Your task to perform on an android device: Search for sushi restaurants on Maps Image 0: 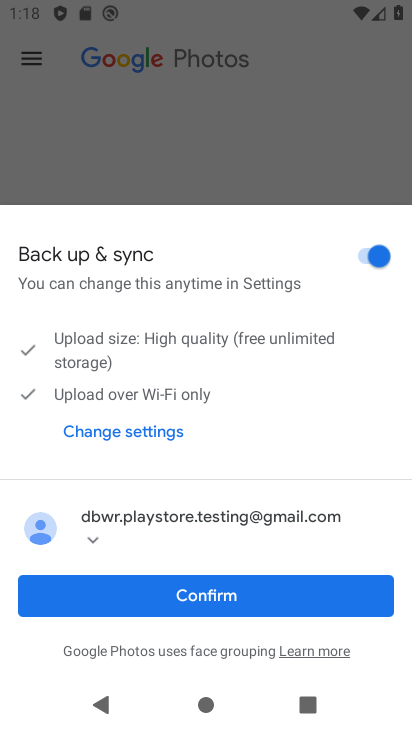
Step 0: press home button
Your task to perform on an android device: Search for sushi restaurants on Maps Image 1: 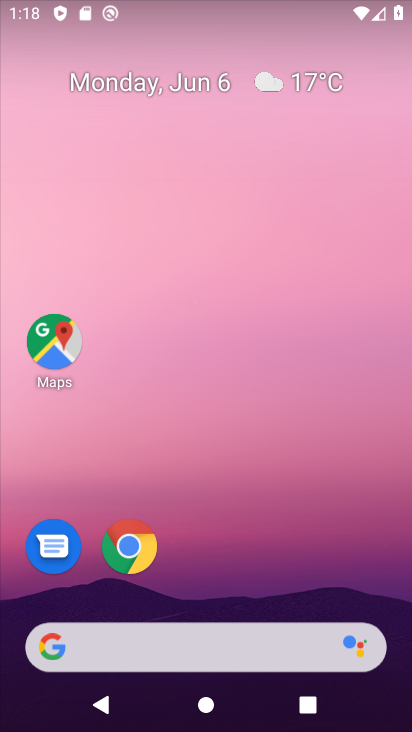
Step 1: drag from (277, 562) to (262, 109)
Your task to perform on an android device: Search for sushi restaurants on Maps Image 2: 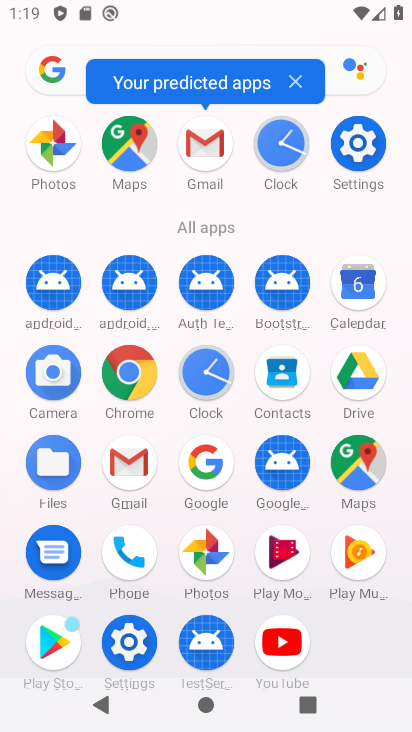
Step 2: click (124, 148)
Your task to perform on an android device: Search for sushi restaurants on Maps Image 3: 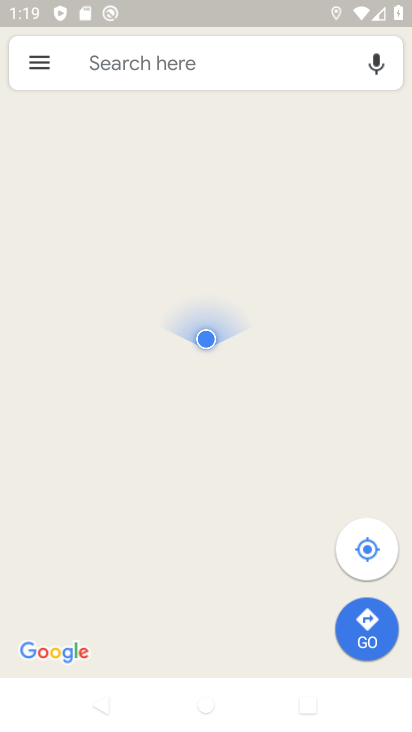
Step 3: type "sushi"
Your task to perform on an android device: Search for sushi restaurants on Maps Image 4: 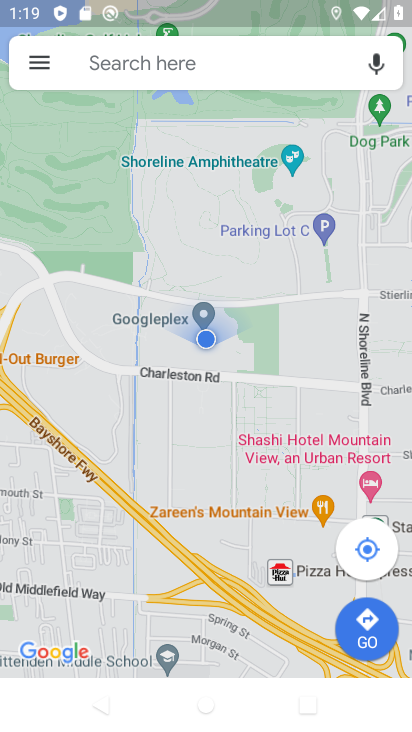
Step 4: click (184, 72)
Your task to perform on an android device: Search for sushi restaurants on Maps Image 5: 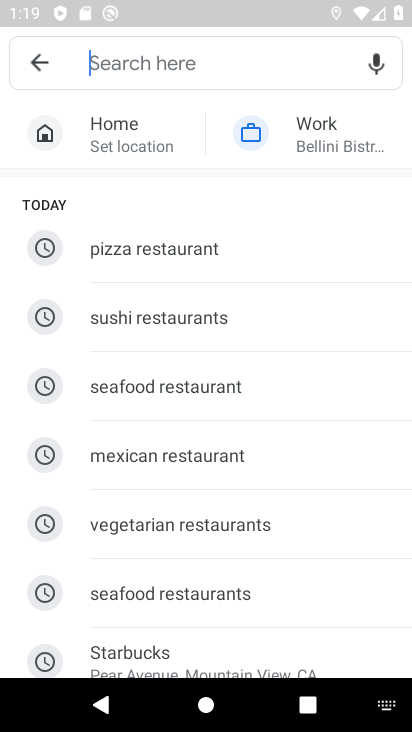
Step 5: type "sushi"
Your task to perform on an android device: Search for sushi restaurants on Maps Image 6: 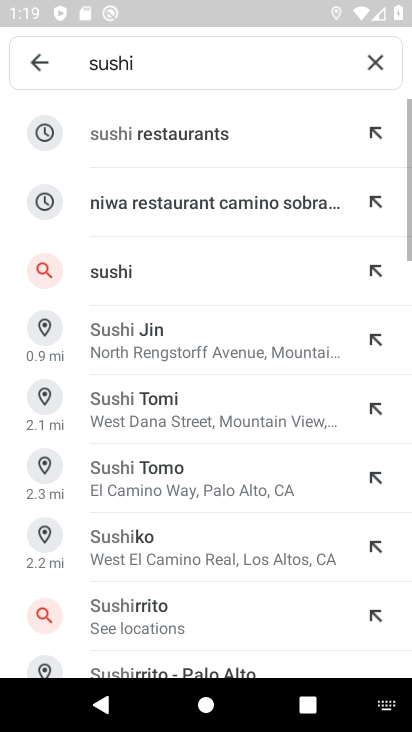
Step 6: click (165, 134)
Your task to perform on an android device: Search for sushi restaurants on Maps Image 7: 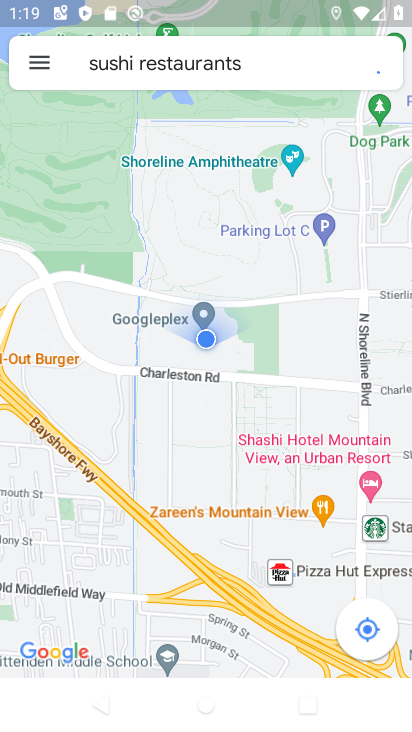
Step 7: task complete